Your task to perform on an android device: Show me popular games on the Play Store Image 0: 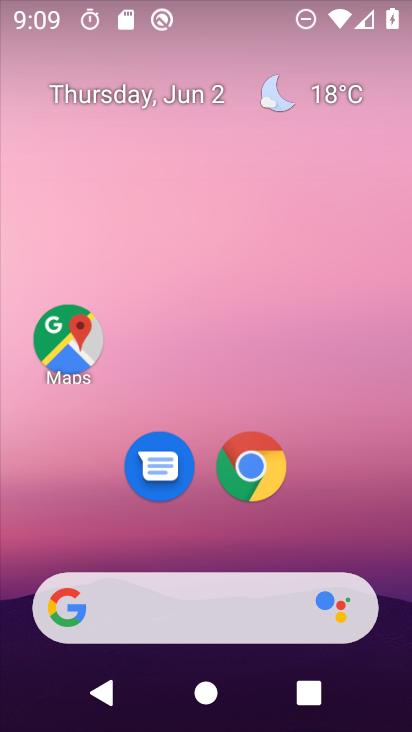
Step 0: press home button
Your task to perform on an android device: Show me popular games on the Play Store Image 1: 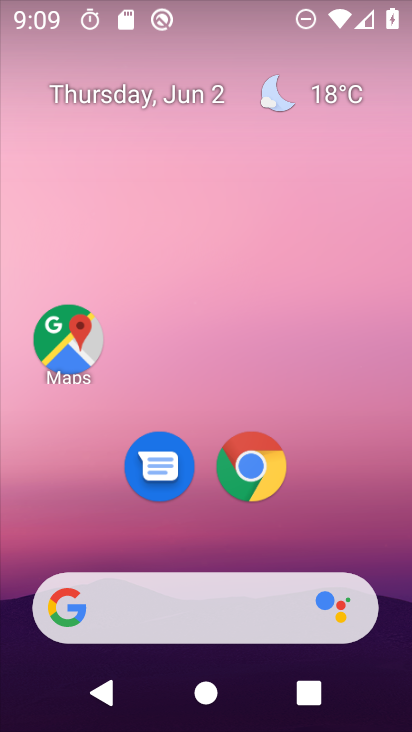
Step 1: drag from (309, 529) to (200, 51)
Your task to perform on an android device: Show me popular games on the Play Store Image 2: 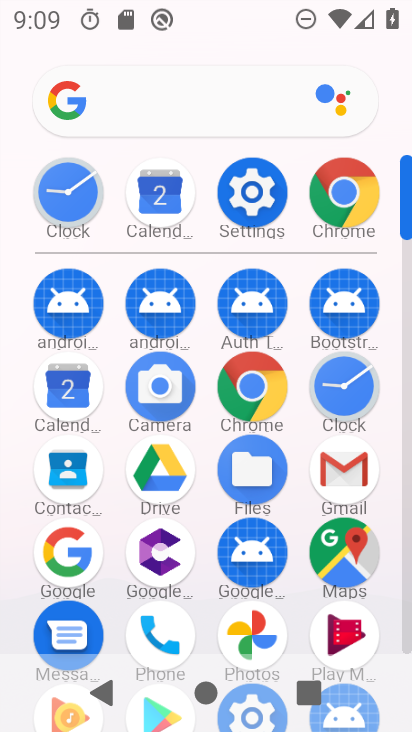
Step 2: drag from (207, 512) to (204, 4)
Your task to perform on an android device: Show me popular games on the Play Store Image 3: 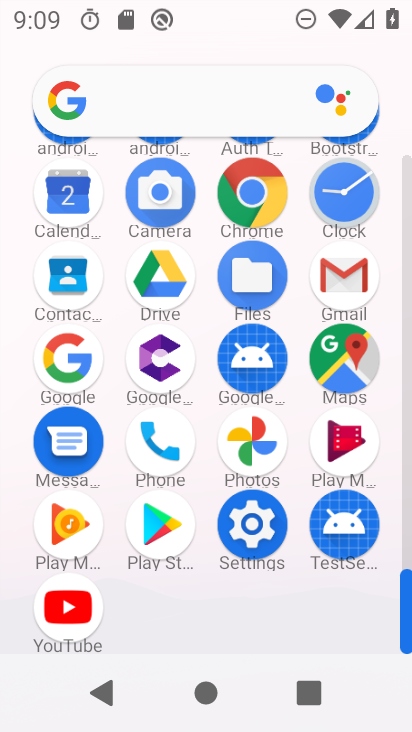
Step 3: click (145, 532)
Your task to perform on an android device: Show me popular games on the Play Store Image 4: 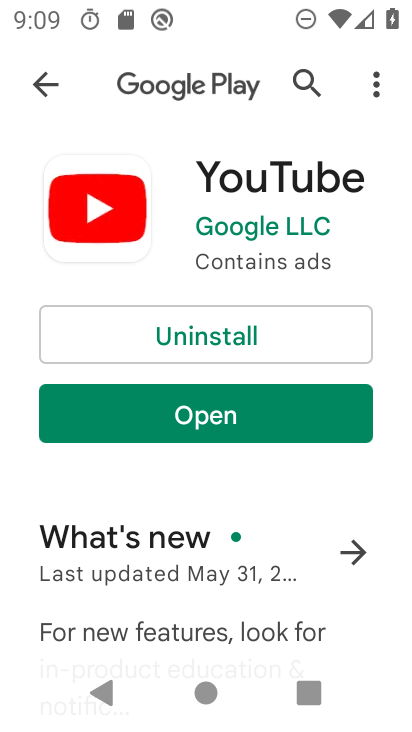
Step 4: click (42, 85)
Your task to perform on an android device: Show me popular games on the Play Store Image 5: 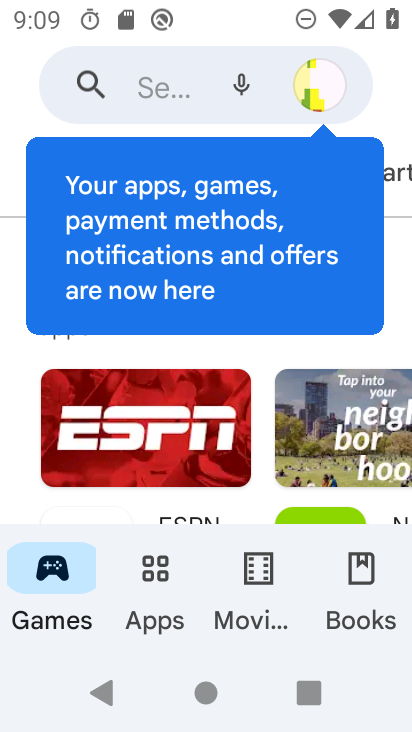
Step 5: click (68, 597)
Your task to perform on an android device: Show me popular games on the Play Store Image 6: 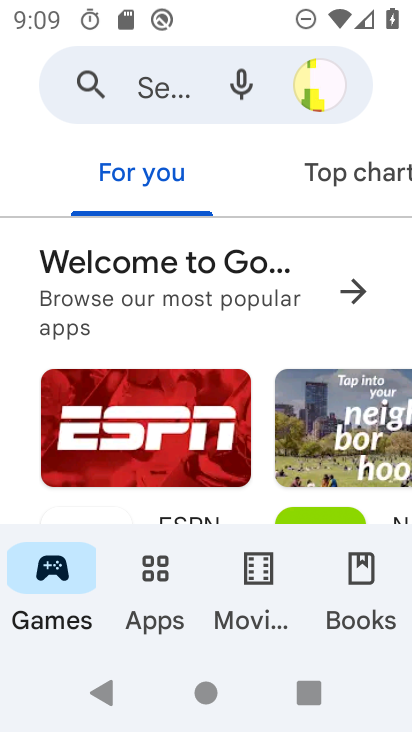
Step 6: drag from (380, 208) to (7, 194)
Your task to perform on an android device: Show me popular games on the Play Store Image 7: 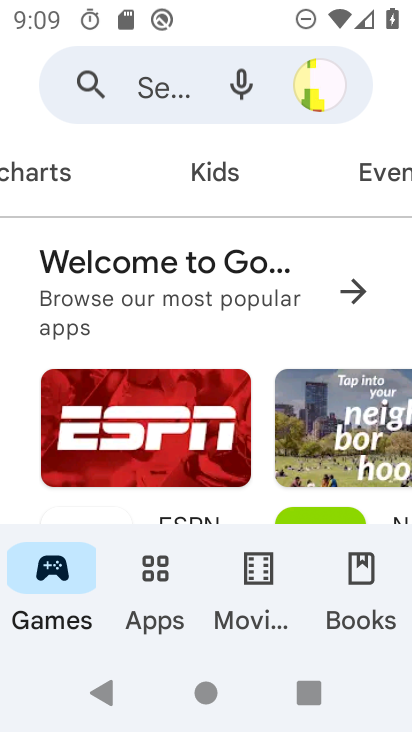
Step 7: drag from (244, 197) to (3, 232)
Your task to perform on an android device: Show me popular games on the Play Store Image 8: 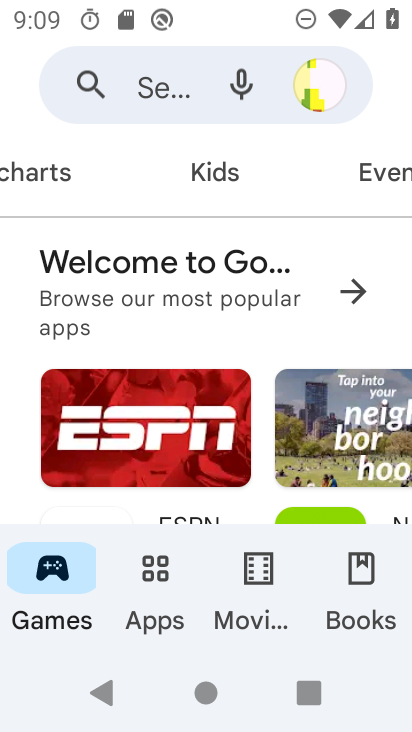
Step 8: drag from (256, 200) to (24, 221)
Your task to perform on an android device: Show me popular games on the Play Store Image 9: 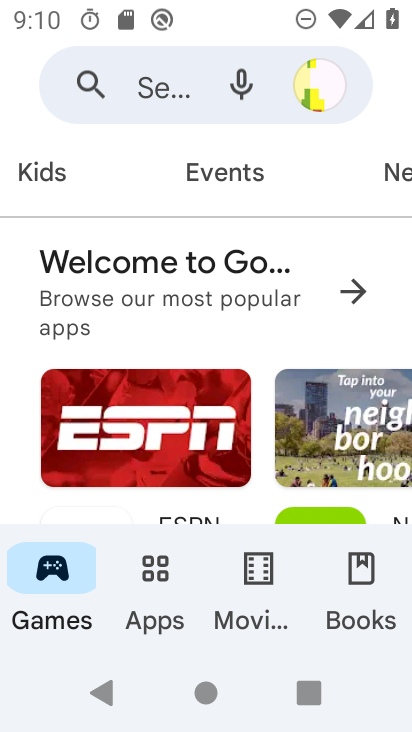
Step 9: drag from (392, 186) to (24, 188)
Your task to perform on an android device: Show me popular games on the Play Store Image 10: 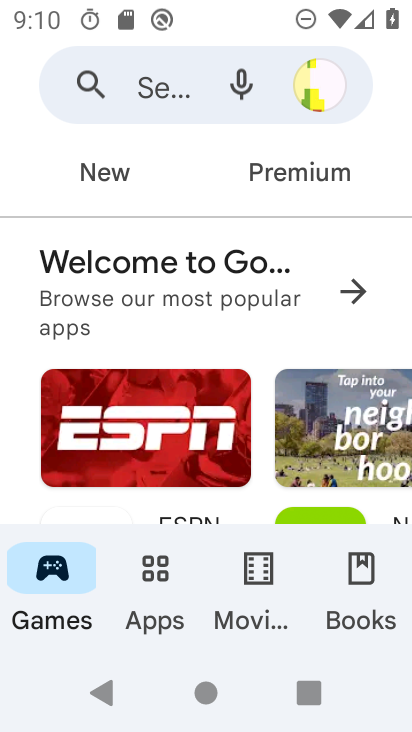
Step 10: drag from (268, 188) to (36, 188)
Your task to perform on an android device: Show me popular games on the Play Store Image 11: 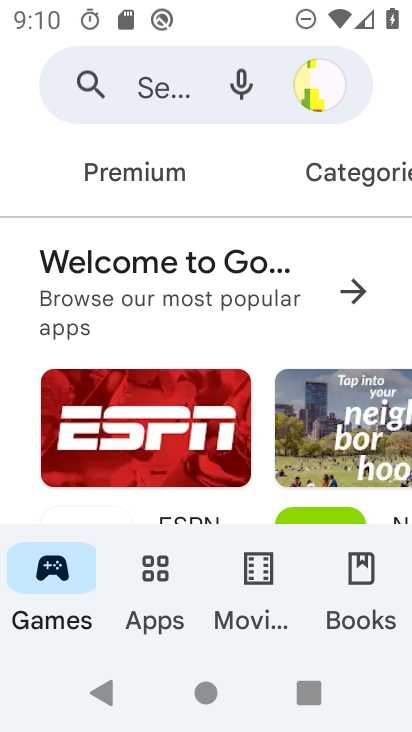
Step 11: click (337, 179)
Your task to perform on an android device: Show me popular games on the Play Store Image 12: 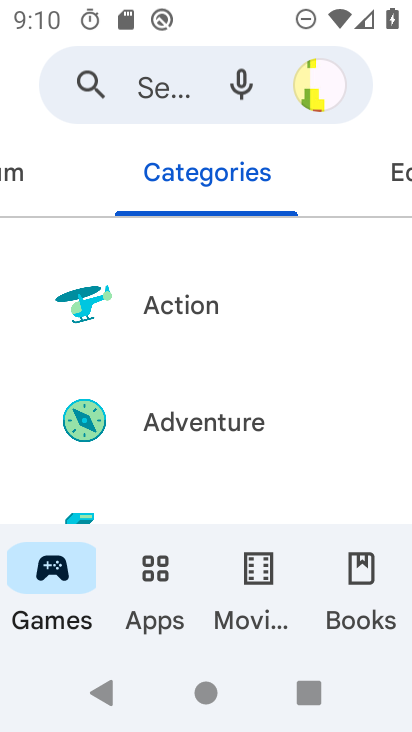
Step 12: task complete